Your task to perform on an android device: set an alarm Image 0: 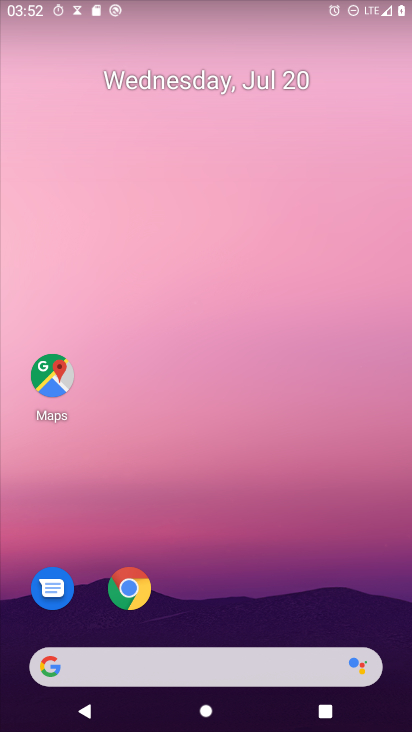
Step 0: drag from (233, 615) to (177, 31)
Your task to perform on an android device: set an alarm Image 1: 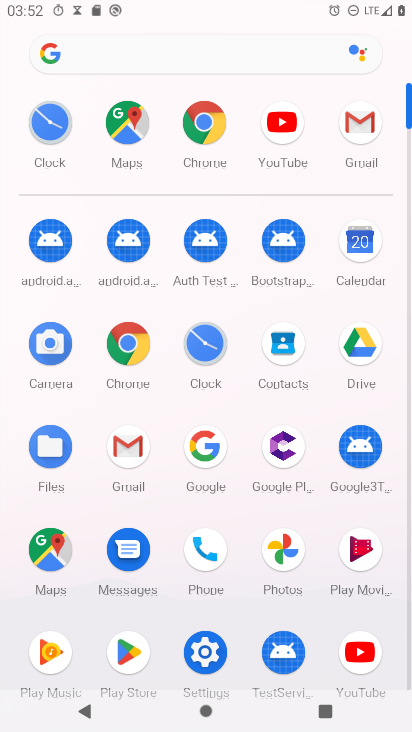
Step 1: click (64, 122)
Your task to perform on an android device: set an alarm Image 2: 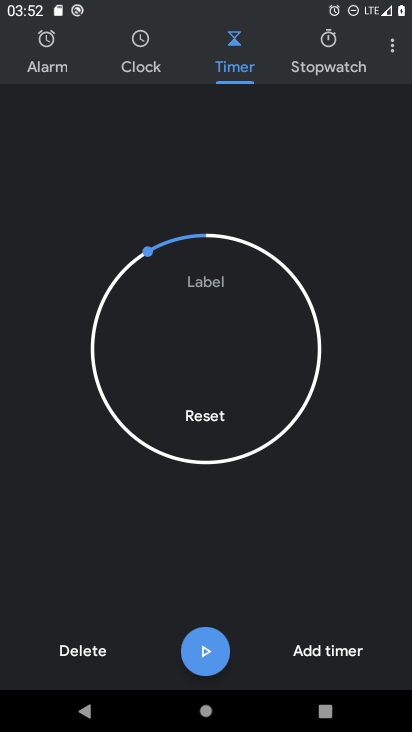
Step 2: click (37, 57)
Your task to perform on an android device: set an alarm Image 3: 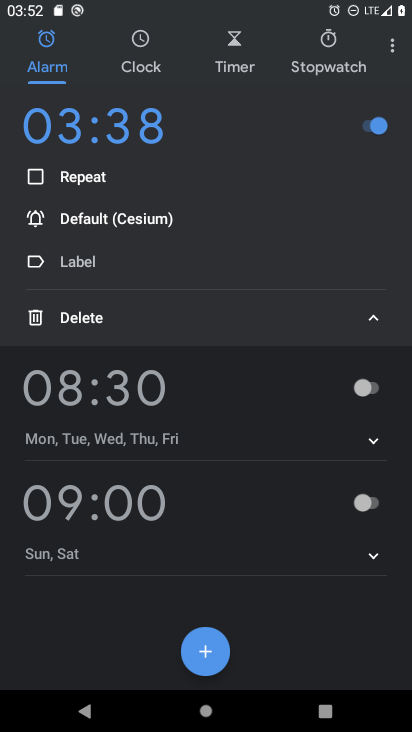
Step 3: click (204, 637)
Your task to perform on an android device: set an alarm Image 4: 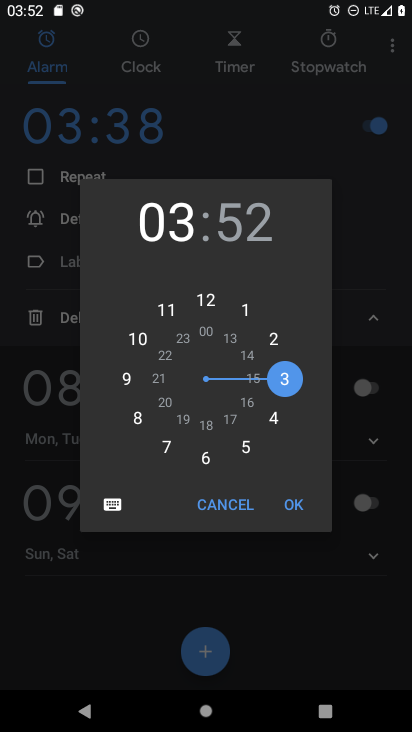
Step 4: click (294, 510)
Your task to perform on an android device: set an alarm Image 5: 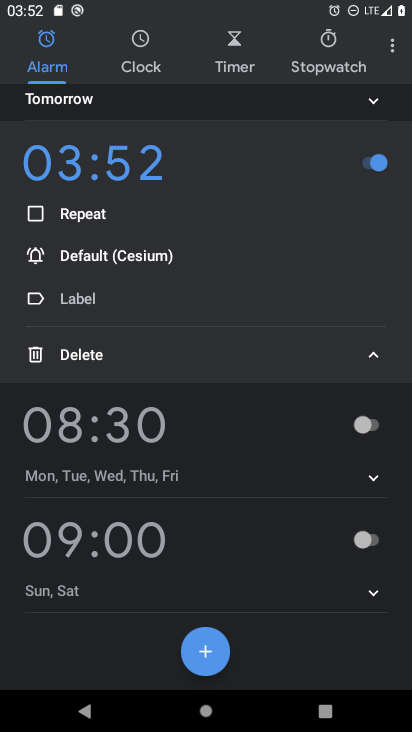
Step 5: task complete